Your task to perform on an android device: stop showing notifications on the lock screen Image 0: 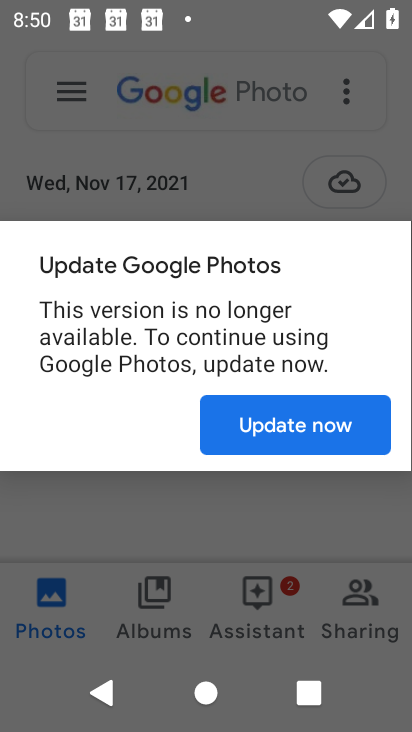
Step 0: press home button
Your task to perform on an android device: stop showing notifications on the lock screen Image 1: 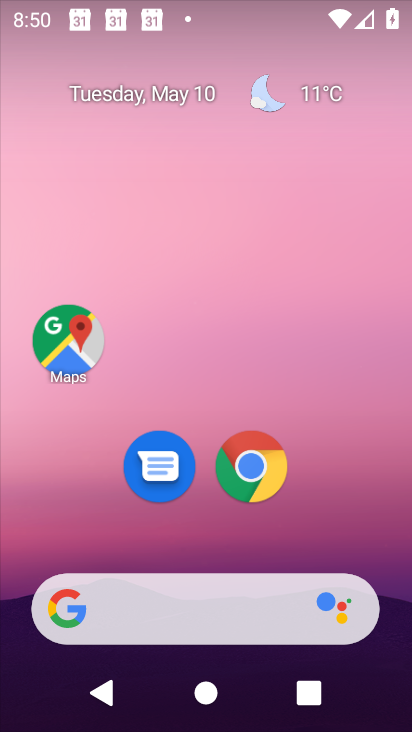
Step 1: drag from (220, 515) to (311, 10)
Your task to perform on an android device: stop showing notifications on the lock screen Image 2: 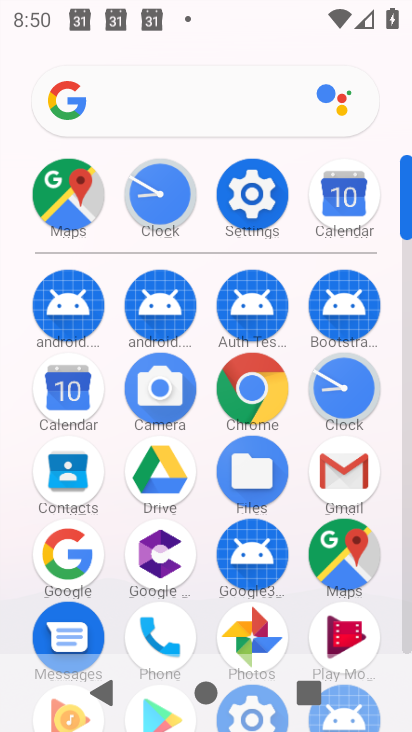
Step 2: click (266, 212)
Your task to perform on an android device: stop showing notifications on the lock screen Image 3: 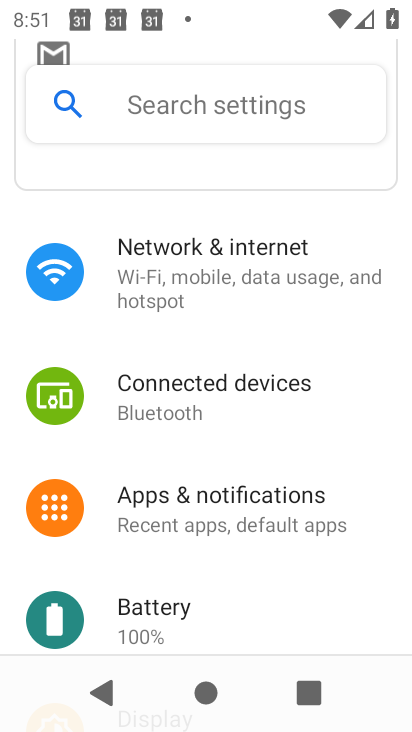
Step 3: click (236, 524)
Your task to perform on an android device: stop showing notifications on the lock screen Image 4: 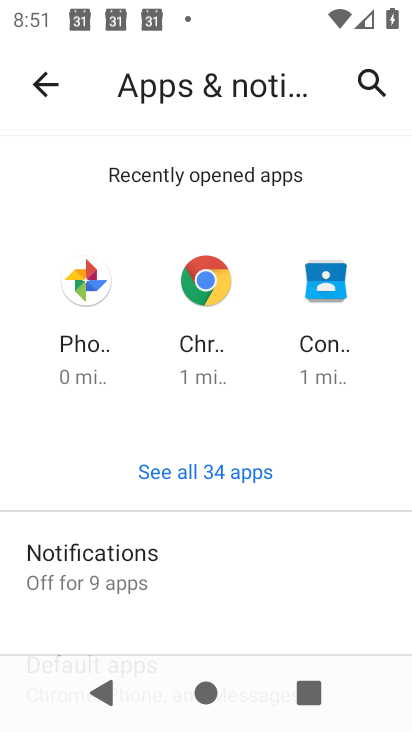
Step 4: drag from (171, 579) to (207, 342)
Your task to perform on an android device: stop showing notifications on the lock screen Image 5: 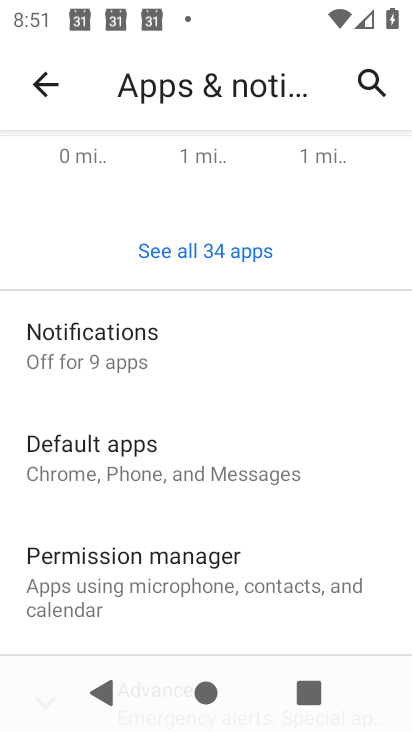
Step 5: click (111, 368)
Your task to perform on an android device: stop showing notifications on the lock screen Image 6: 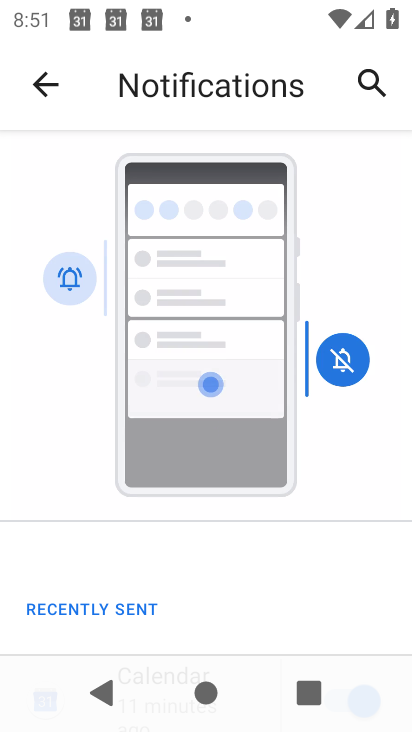
Step 6: drag from (167, 551) to (234, 226)
Your task to perform on an android device: stop showing notifications on the lock screen Image 7: 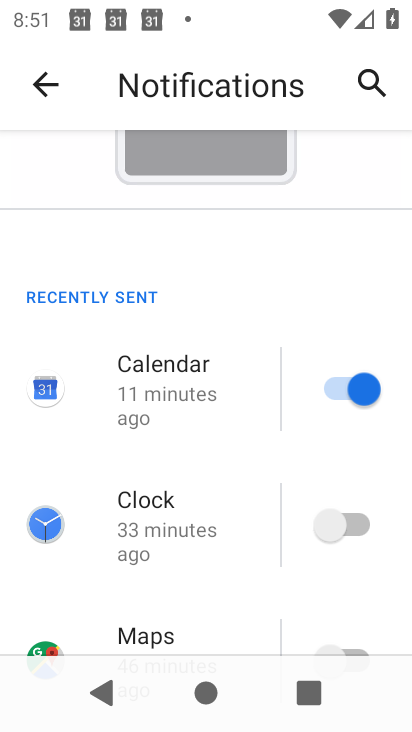
Step 7: drag from (195, 538) to (276, 96)
Your task to perform on an android device: stop showing notifications on the lock screen Image 8: 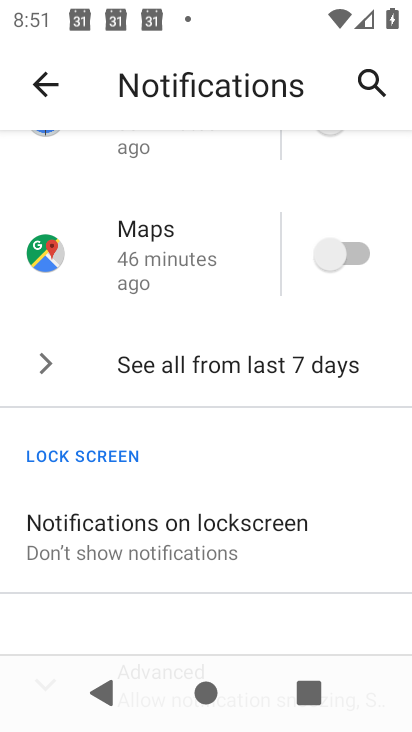
Step 8: click (185, 554)
Your task to perform on an android device: stop showing notifications on the lock screen Image 9: 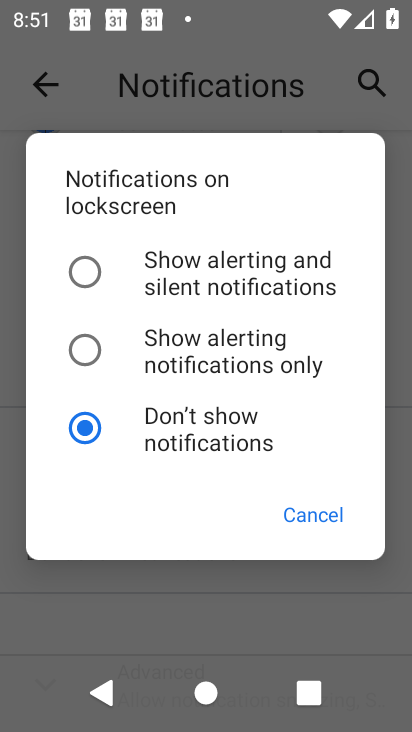
Step 9: task complete